Your task to perform on an android device: Go to Yahoo.com Image 0: 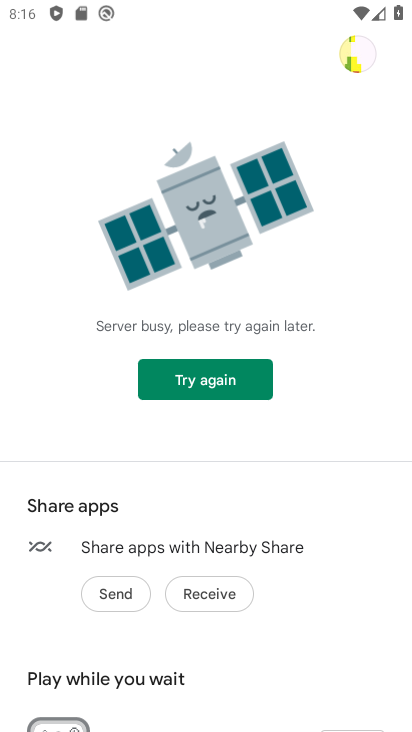
Step 0: press back button
Your task to perform on an android device: Go to Yahoo.com Image 1: 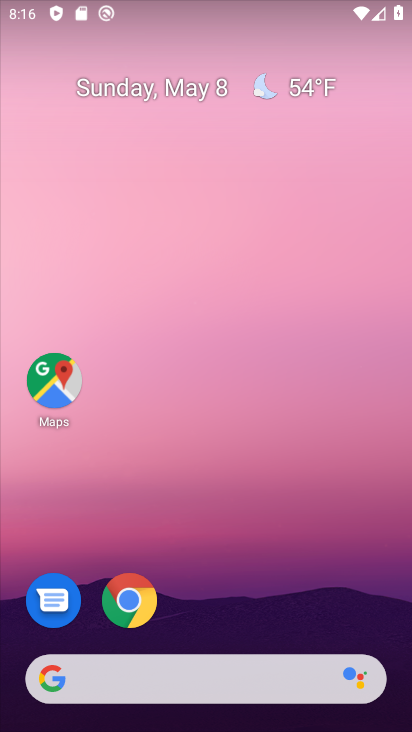
Step 1: click (121, 609)
Your task to perform on an android device: Go to Yahoo.com Image 2: 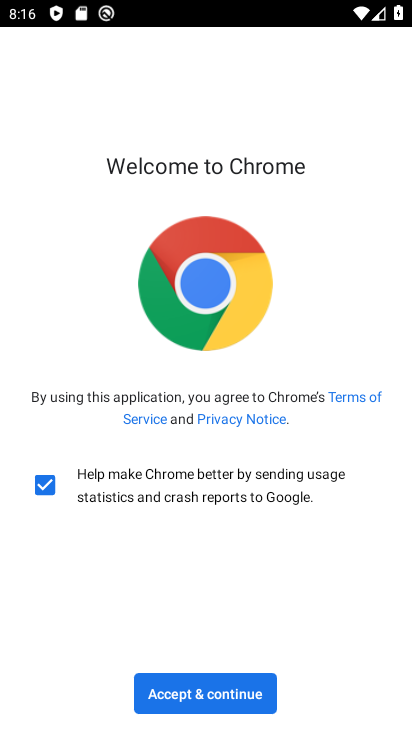
Step 2: click (231, 697)
Your task to perform on an android device: Go to Yahoo.com Image 3: 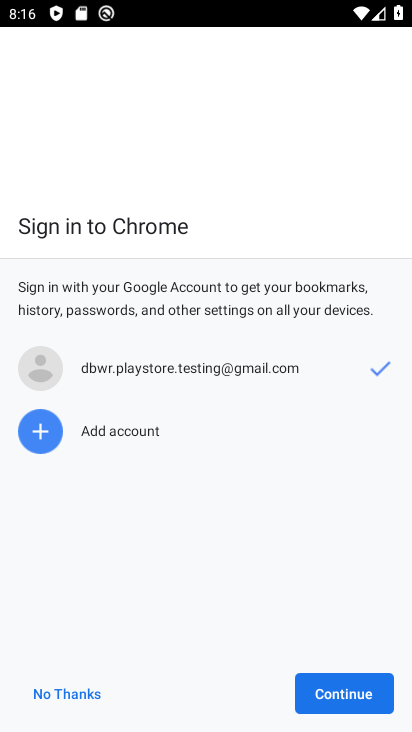
Step 3: click (320, 692)
Your task to perform on an android device: Go to Yahoo.com Image 4: 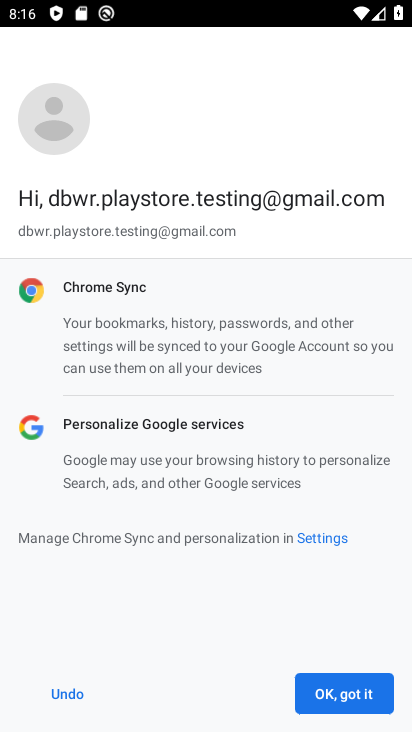
Step 4: click (320, 692)
Your task to perform on an android device: Go to Yahoo.com Image 5: 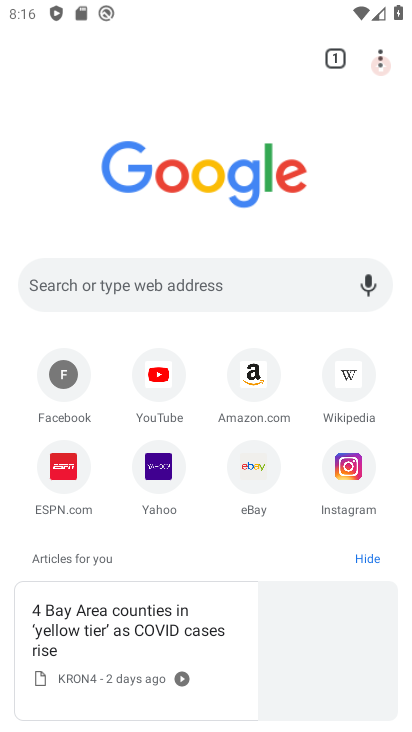
Step 5: click (152, 491)
Your task to perform on an android device: Go to Yahoo.com Image 6: 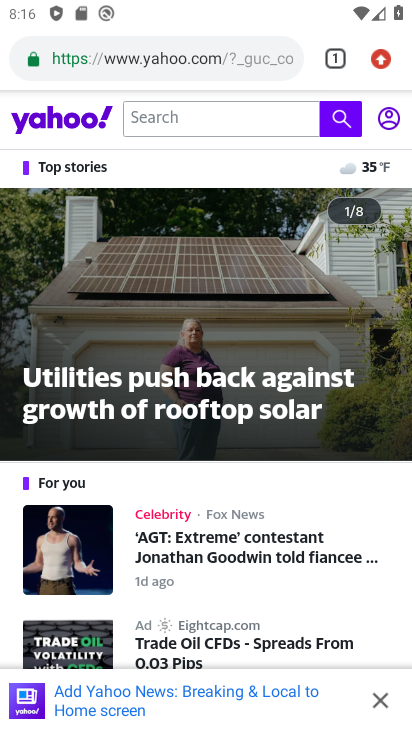
Step 6: task complete